Your task to perform on an android device: What's on my calendar tomorrow? Image 0: 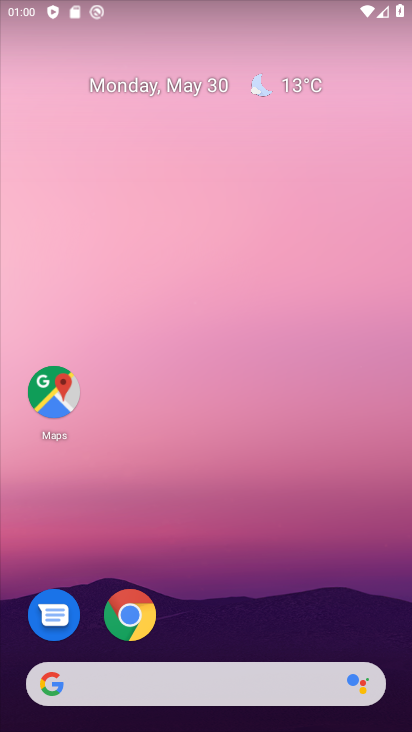
Step 0: drag from (229, 651) to (202, 96)
Your task to perform on an android device: What's on my calendar tomorrow? Image 1: 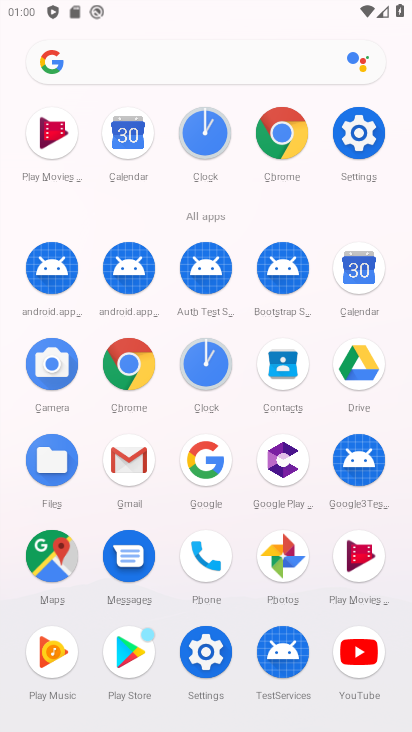
Step 1: click (388, 262)
Your task to perform on an android device: What's on my calendar tomorrow? Image 2: 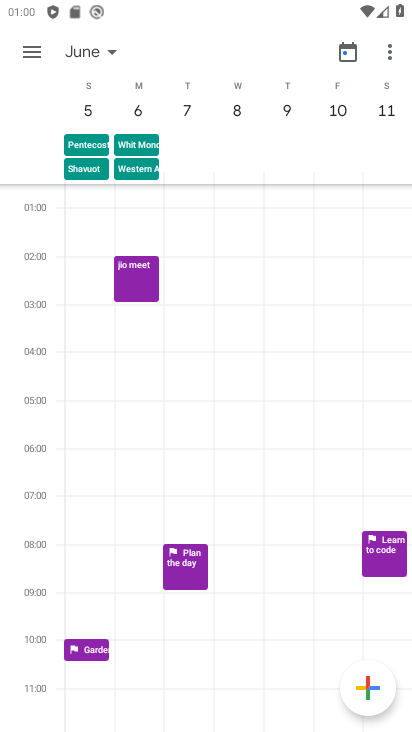
Step 2: click (359, 46)
Your task to perform on an android device: What's on my calendar tomorrow? Image 3: 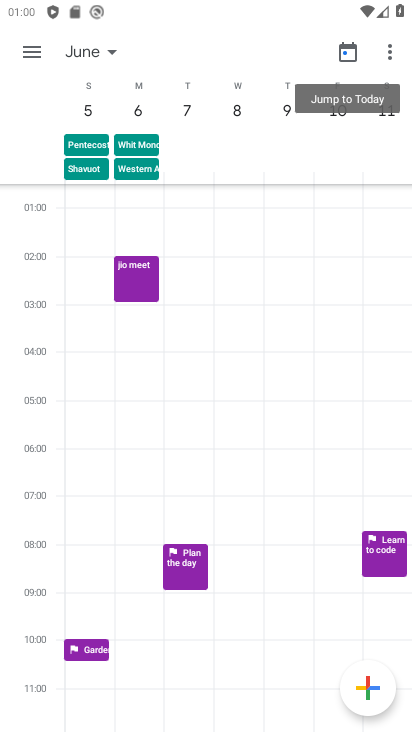
Step 3: click (344, 54)
Your task to perform on an android device: What's on my calendar tomorrow? Image 4: 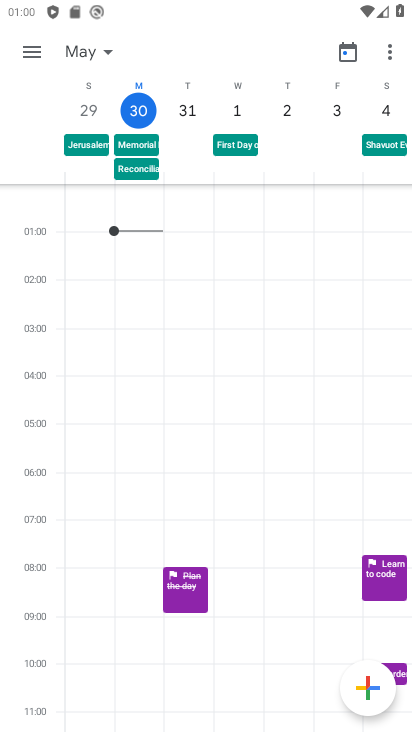
Step 4: click (344, 54)
Your task to perform on an android device: What's on my calendar tomorrow? Image 5: 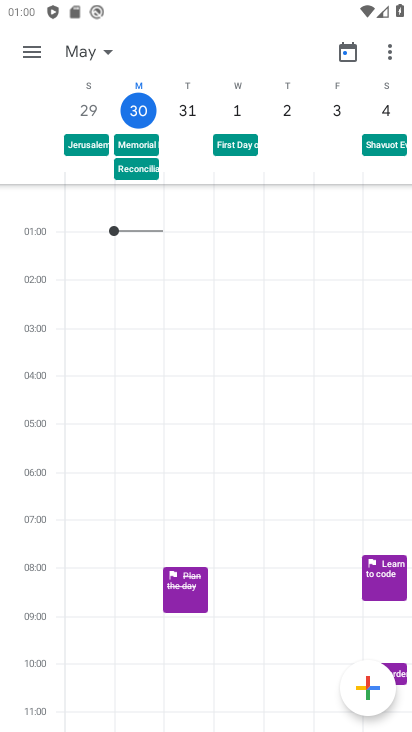
Step 5: click (180, 115)
Your task to perform on an android device: What's on my calendar tomorrow? Image 6: 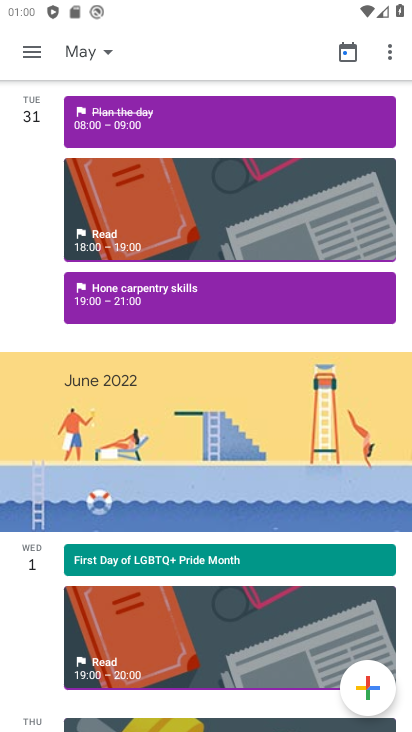
Step 6: task complete